Your task to perform on an android device: search for starred emails in the gmail app Image 0: 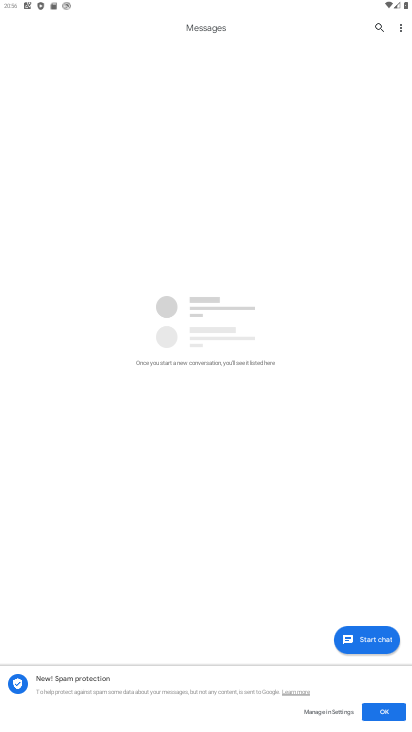
Step 0: press home button
Your task to perform on an android device: search for starred emails in the gmail app Image 1: 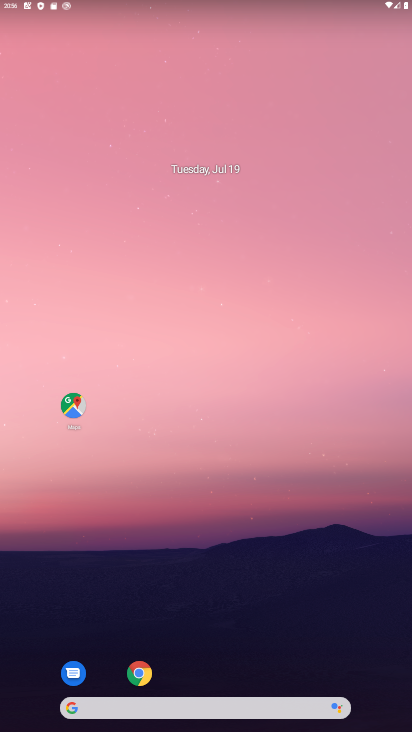
Step 1: drag from (195, 672) to (151, 68)
Your task to perform on an android device: search for starred emails in the gmail app Image 2: 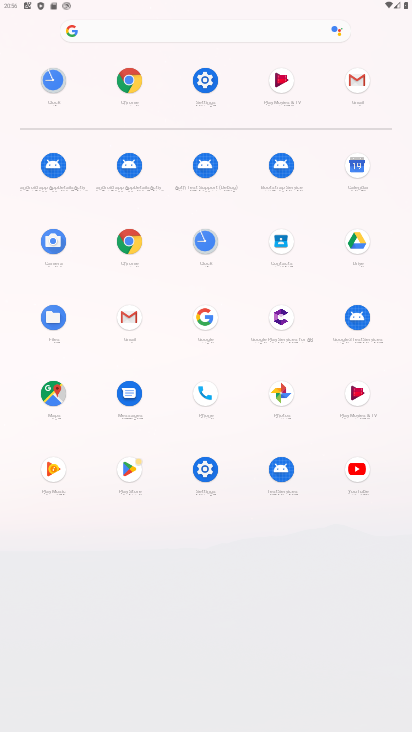
Step 2: click (127, 313)
Your task to perform on an android device: search for starred emails in the gmail app Image 3: 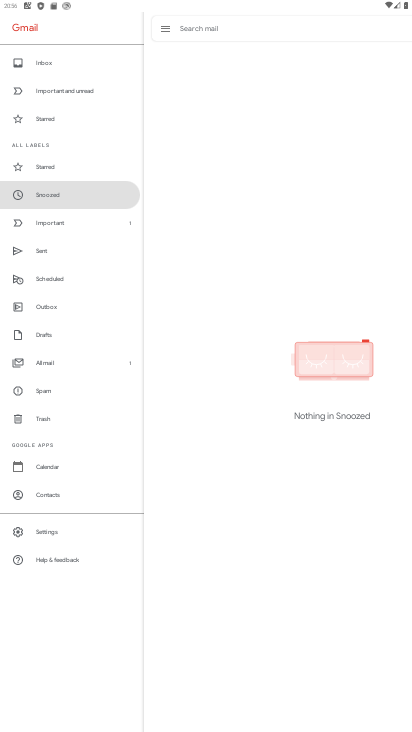
Step 3: click (60, 162)
Your task to perform on an android device: search for starred emails in the gmail app Image 4: 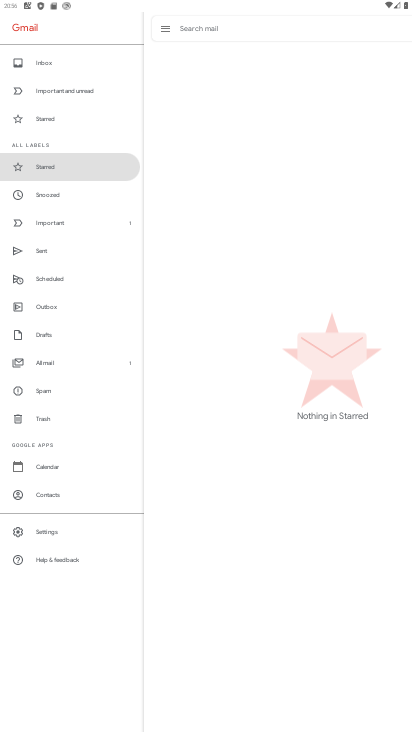
Step 4: task complete